Your task to perform on an android device: uninstall "Indeed Job Search" Image 0: 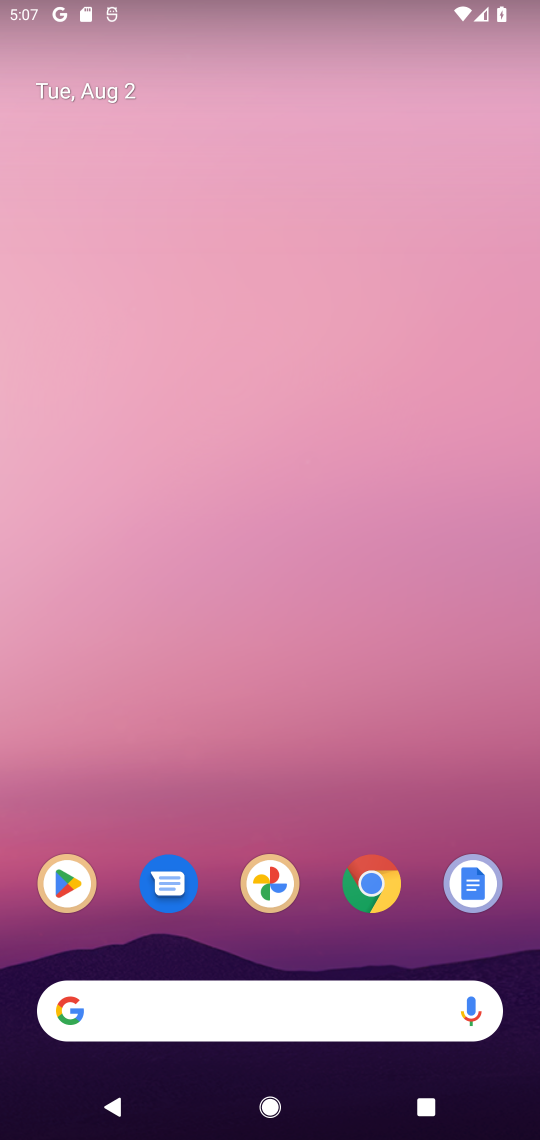
Step 0: drag from (274, 954) to (210, 28)
Your task to perform on an android device: uninstall "Indeed Job Search" Image 1: 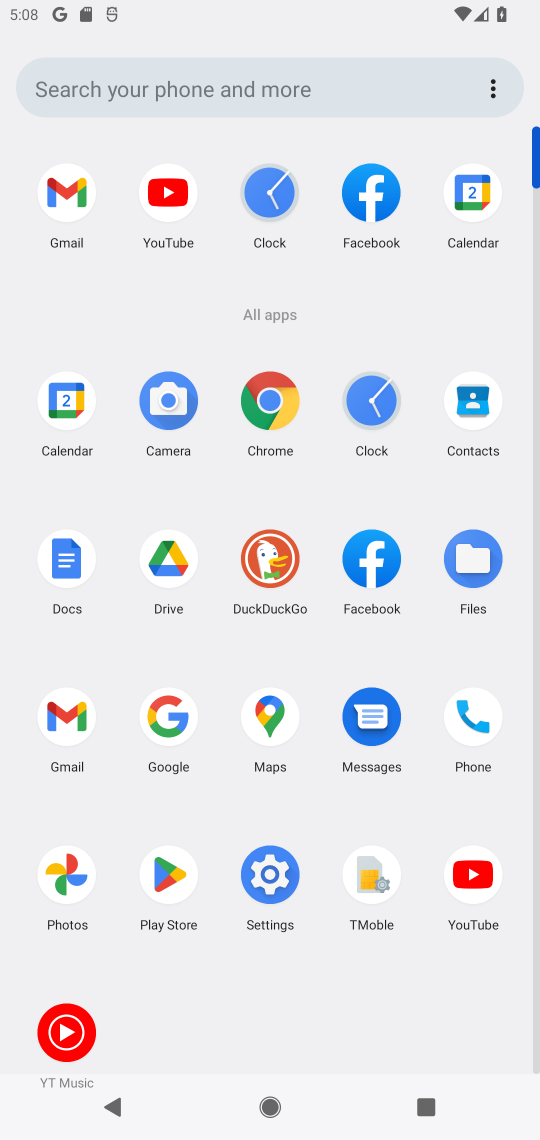
Step 1: click (178, 883)
Your task to perform on an android device: uninstall "Indeed Job Search" Image 2: 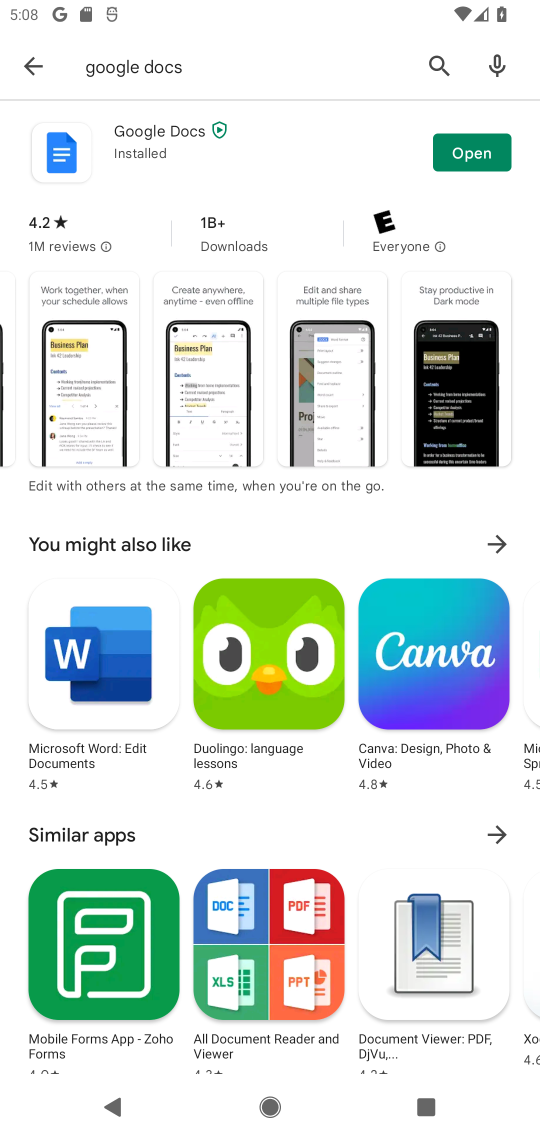
Step 2: click (31, 78)
Your task to perform on an android device: uninstall "Indeed Job Search" Image 3: 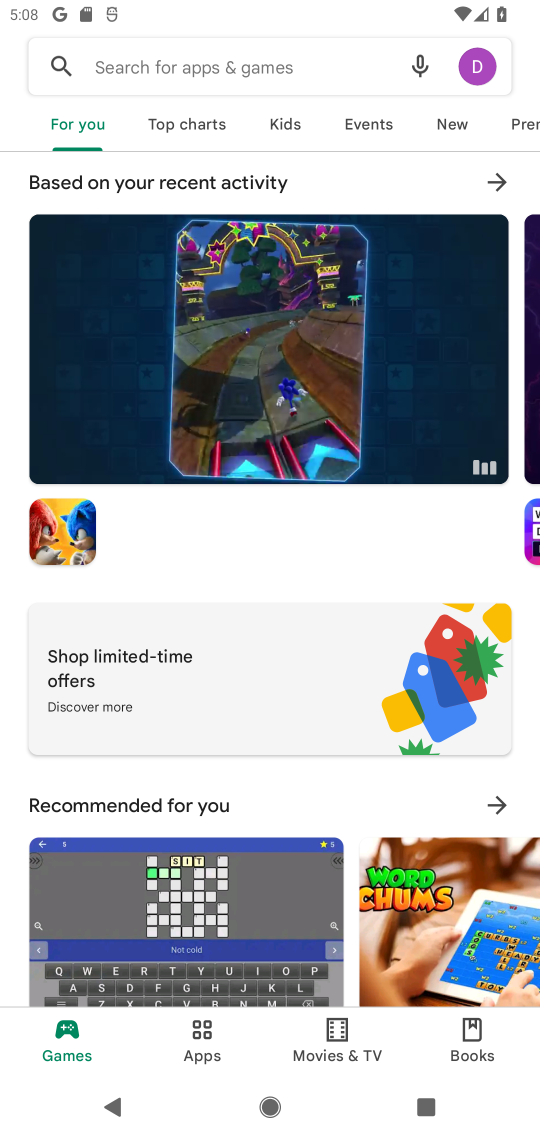
Step 3: click (236, 68)
Your task to perform on an android device: uninstall "Indeed Job Search" Image 4: 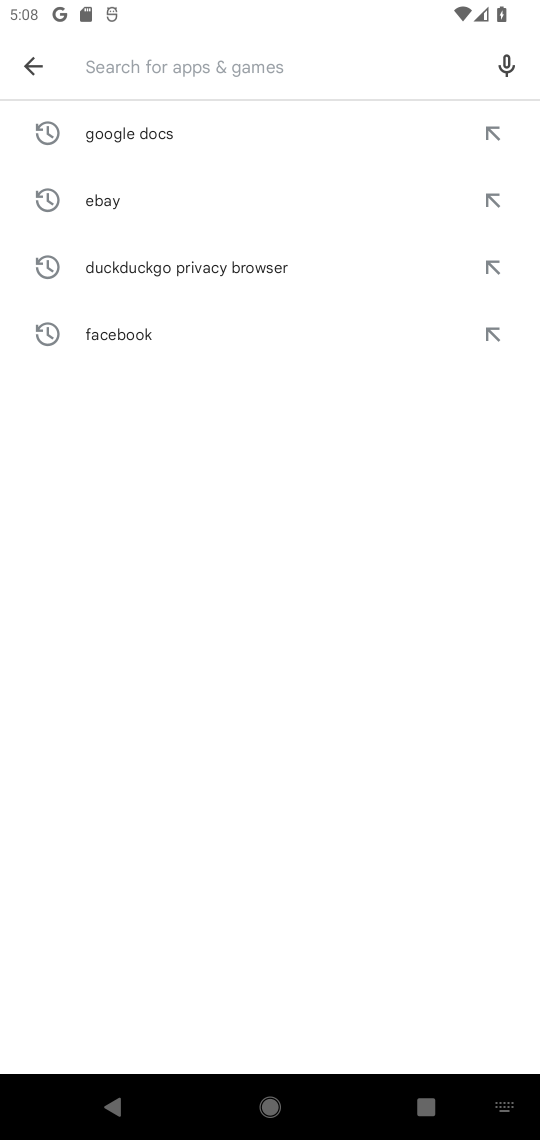
Step 4: type "Indeed Job Search"
Your task to perform on an android device: uninstall "Indeed Job Search" Image 5: 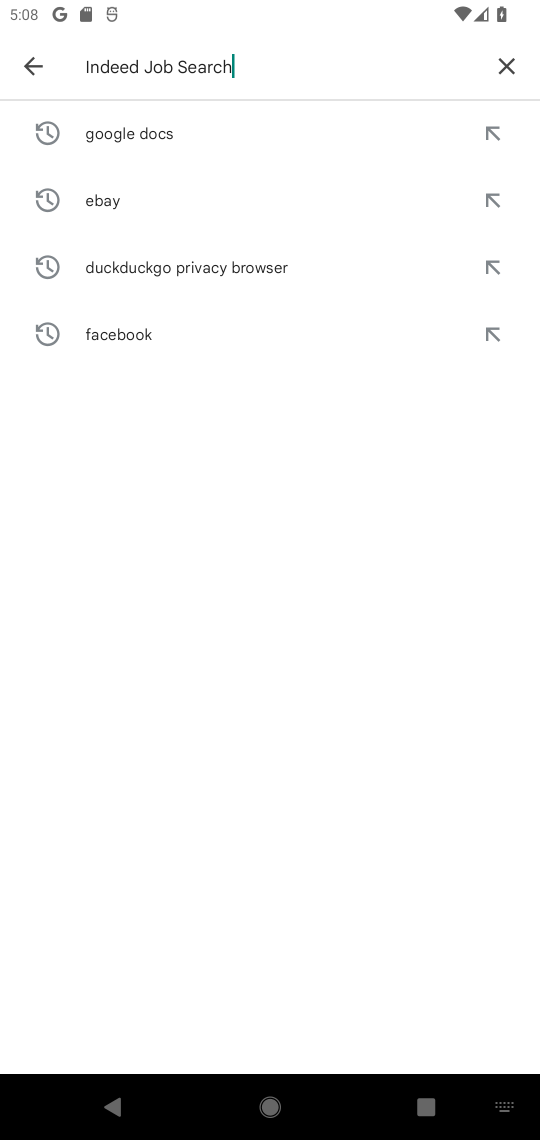
Step 5: type ""
Your task to perform on an android device: uninstall "Indeed Job Search" Image 6: 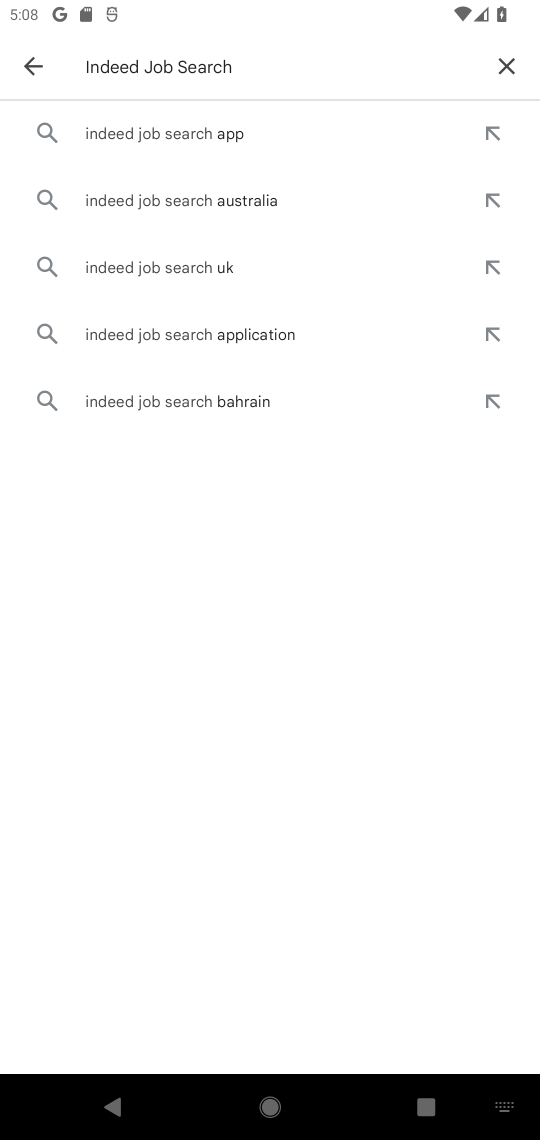
Step 6: click (151, 109)
Your task to perform on an android device: uninstall "Indeed Job Search" Image 7: 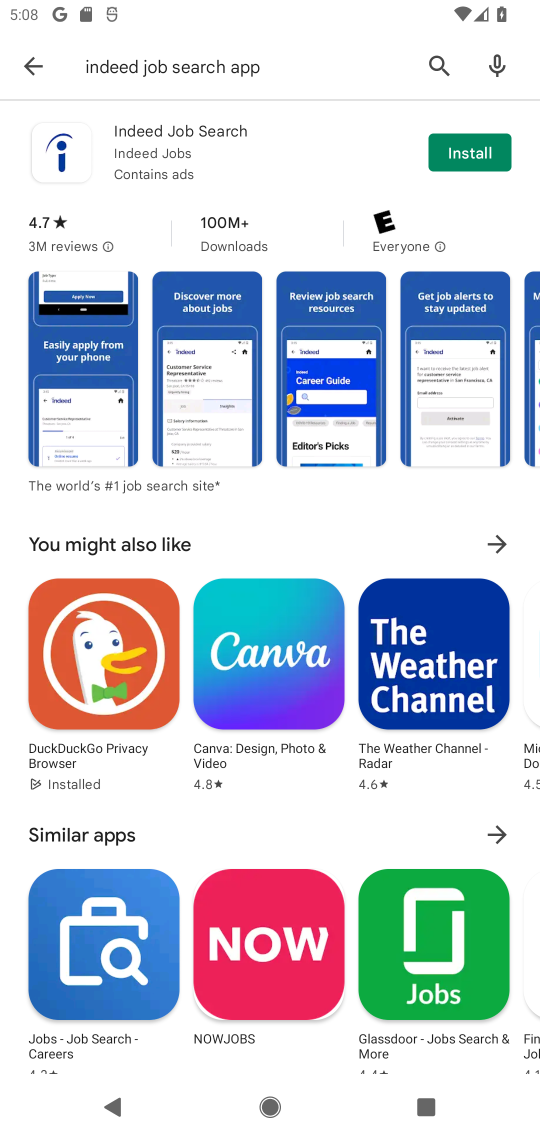
Step 7: click (159, 145)
Your task to perform on an android device: uninstall "Indeed Job Search" Image 8: 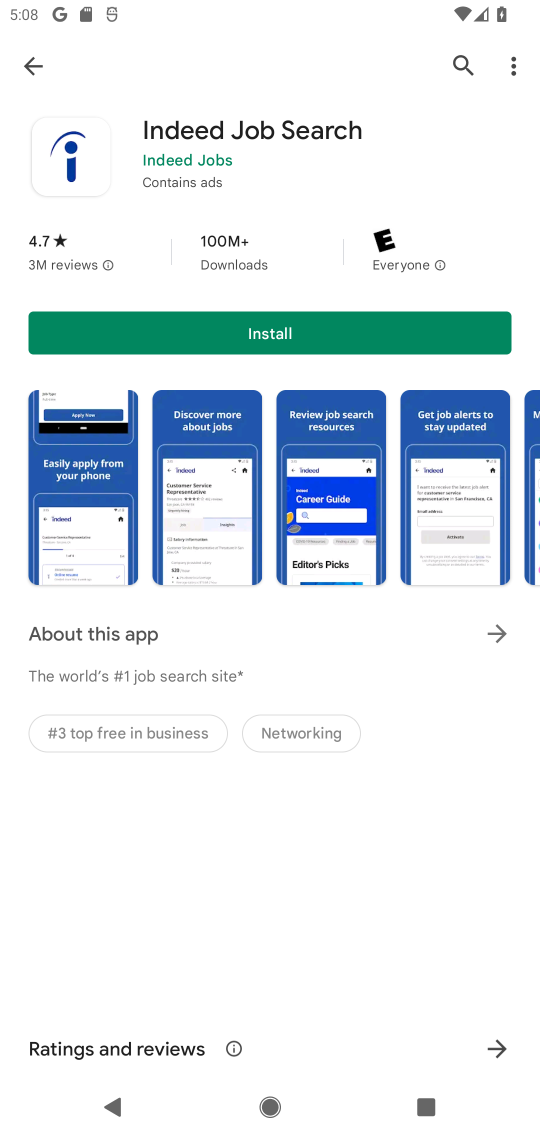
Step 8: task complete